Your task to perform on an android device: Open Chrome and go to the settings page Image 0: 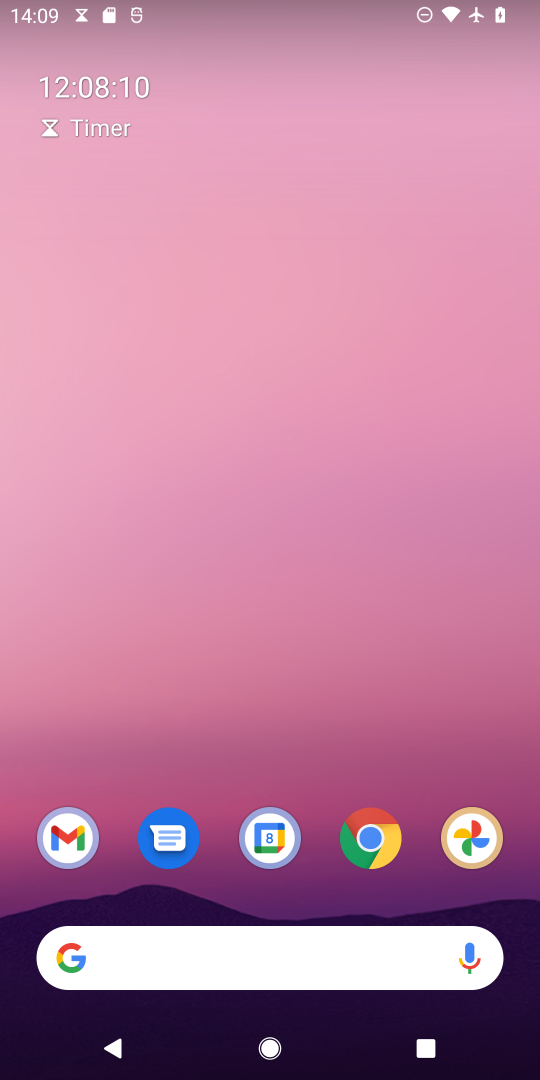
Step 0: press home button
Your task to perform on an android device: Open Chrome and go to the settings page Image 1: 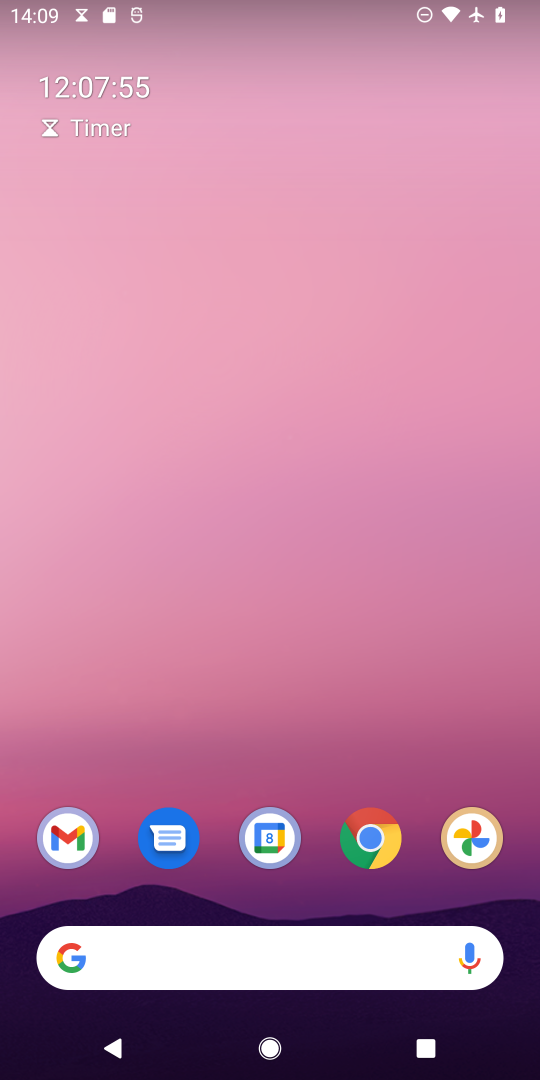
Step 1: click (361, 847)
Your task to perform on an android device: Open Chrome and go to the settings page Image 2: 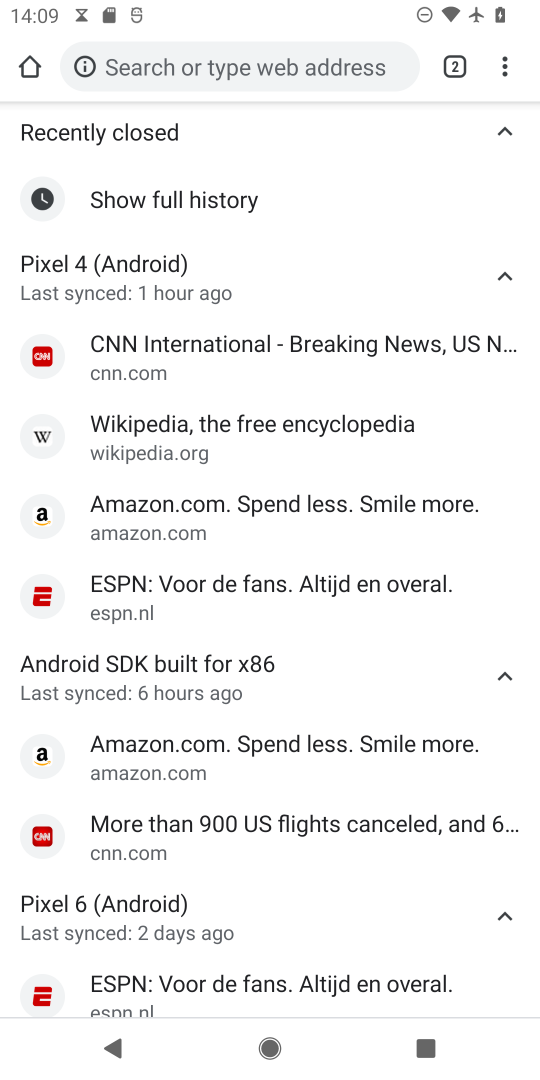
Step 2: task complete